Your task to perform on an android device: Show me productivity apps on the Play Store Image 0: 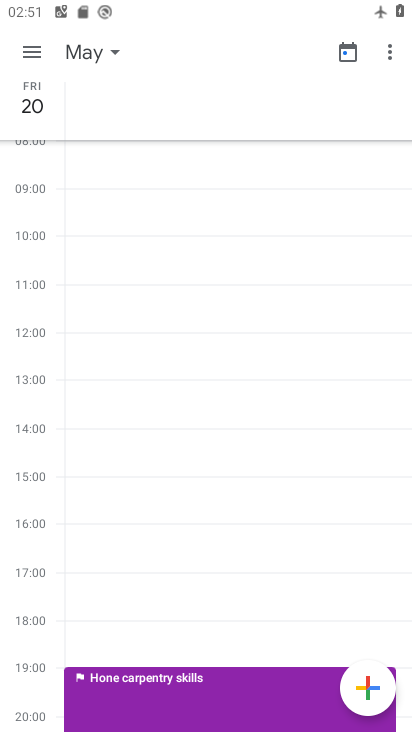
Step 0: press back button
Your task to perform on an android device: Show me productivity apps on the Play Store Image 1: 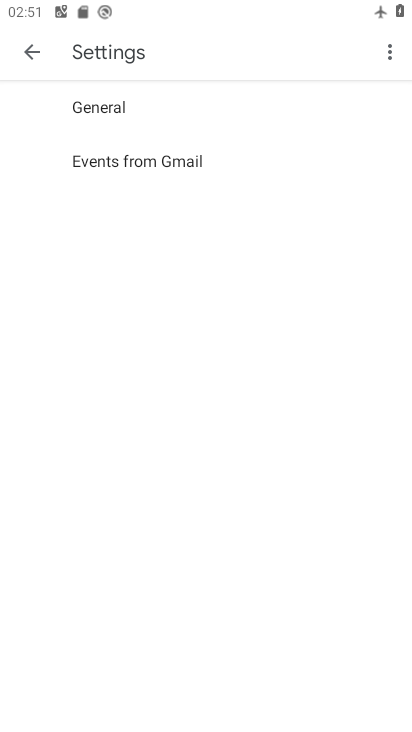
Step 1: press back button
Your task to perform on an android device: Show me productivity apps on the Play Store Image 2: 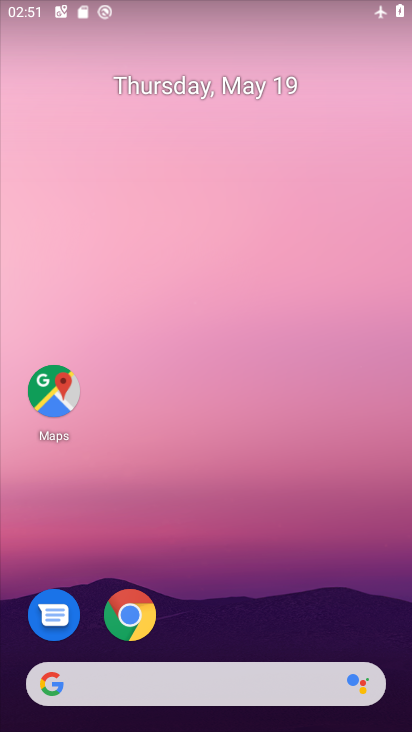
Step 2: drag from (279, 492) to (253, 31)
Your task to perform on an android device: Show me productivity apps on the Play Store Image 3: 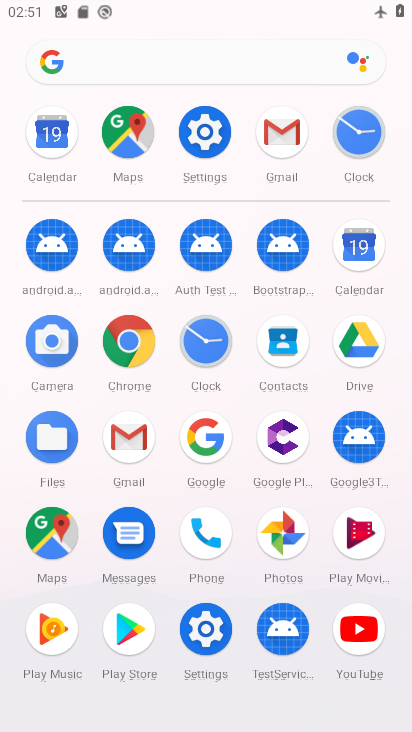
Step 3: drag from (12, 506) to (33, 189)
Your task to perform on an android device: Show me productivity apps on the Play Store Image 4: 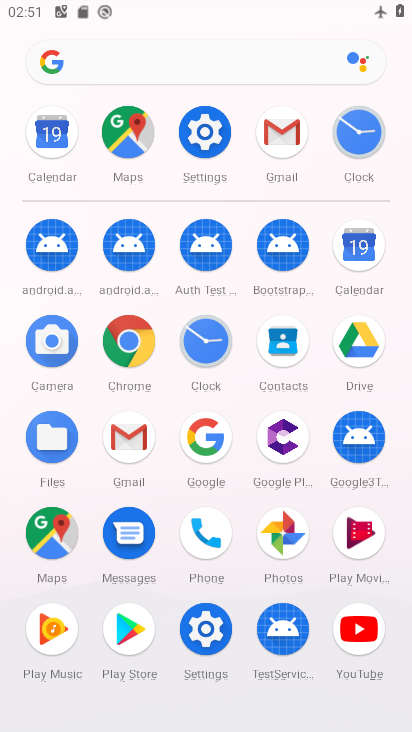
Step 4: click (130, 626)
Your task to perform on an android device: Show me productivity apps on the Play Store Image 5: 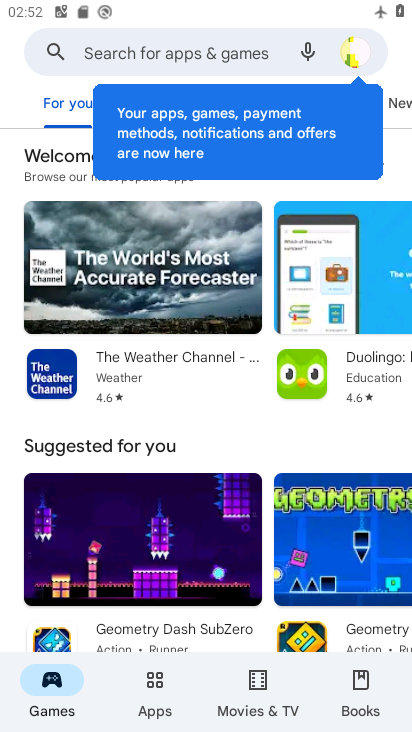
Step 5: click (161, 682)
Your task to perform on an android device: Show me productivity apps on the Play Store Image 6: 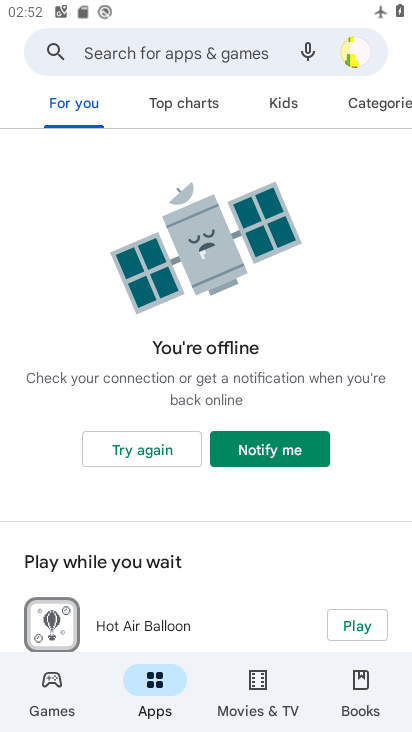
Step 6: click (391, 101)
Your task to perform on an android device: Show me productivity apps on the Play Store Image 7: 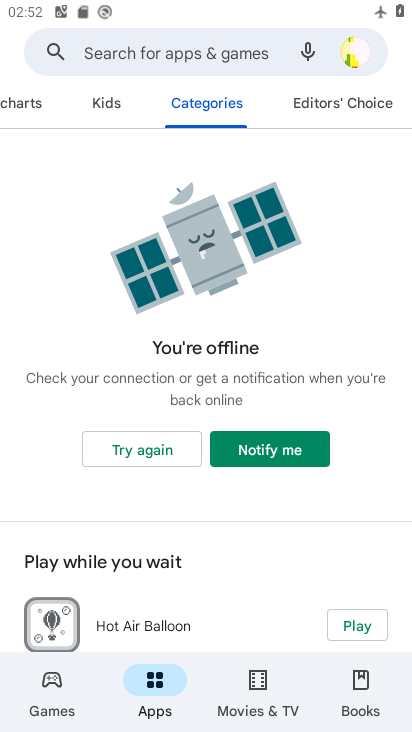
Step 7: click (210, 95)
Your task to perform on an android device: Show me productivity apps on the Play Store Image 8: 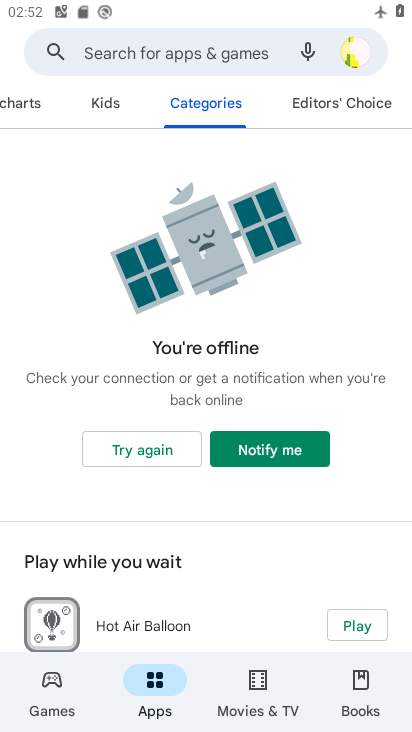
Step 8: click (172, 428)
Your task to perform on an android device: Show me productivity apps on the Play Store Image 9: 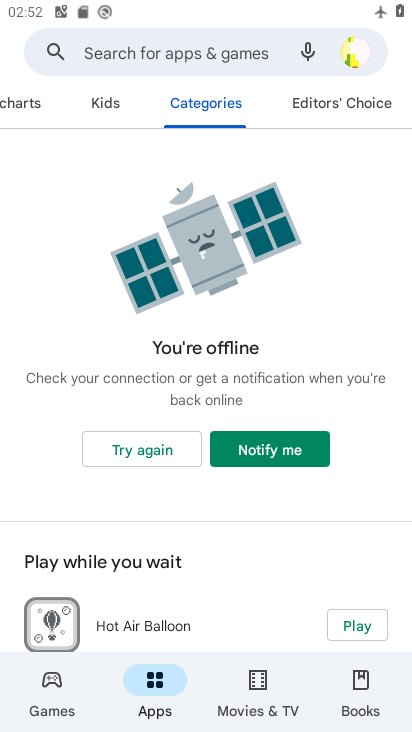
Step 9: task complete